Your task to perform on an android device: all mails in gmail Image 0: 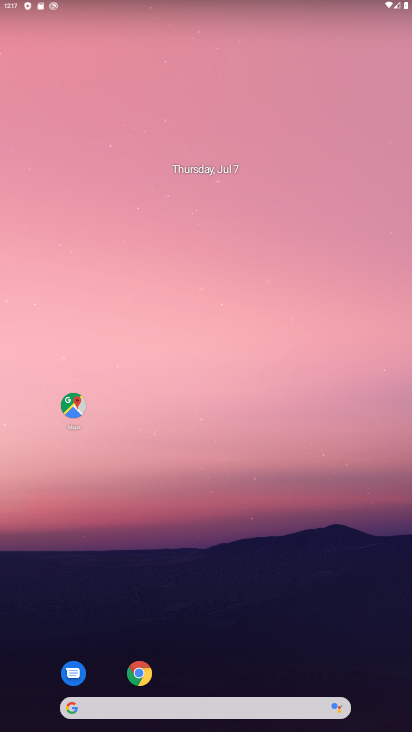
Step 0: drag from (187, 682) to (189, 0)
Your task to perform on an android device: all mails in gmail Image 1: 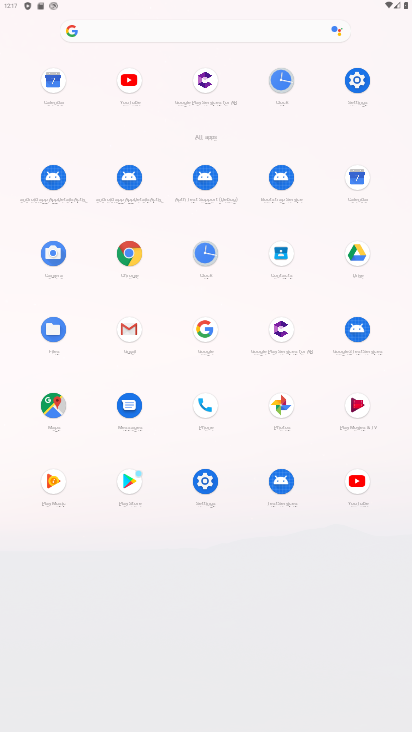
Step 1: click (133, 339)
Your task to perform on an android device: all mails in gmail Image 2: 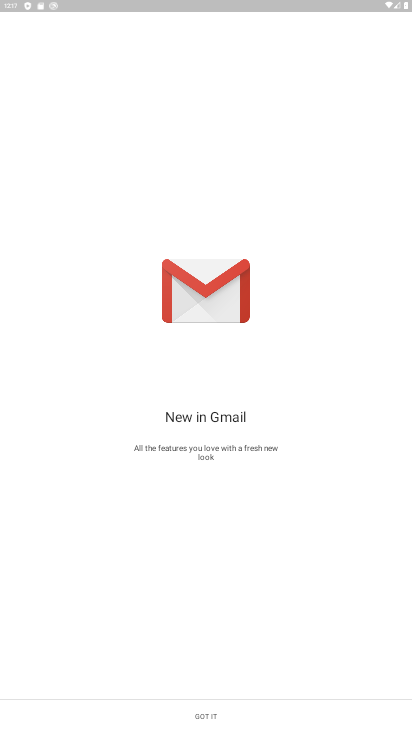
Step 2: click (200, 718)
Your task to perform on an android device: all mails in gmail Image 3: 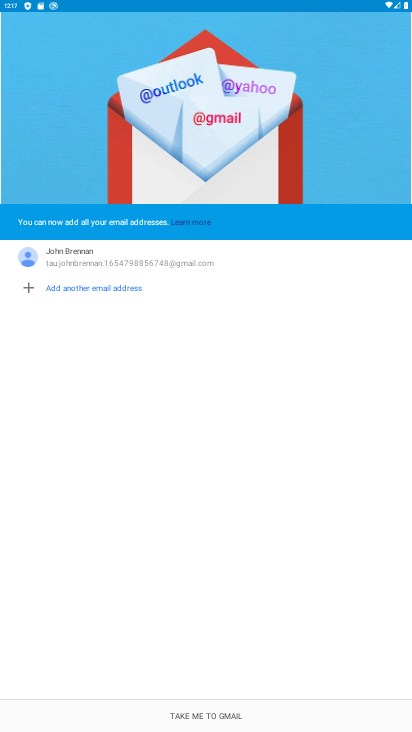
Step 3: click (163, 259)
Your task to perform on an android device: all mails in gmail Image 4: 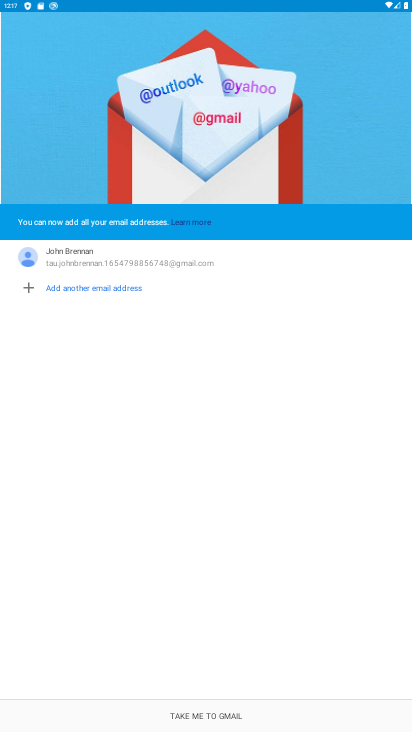
Step 4: click (142, 258)
Your task to perform on an android device: all mails in gmail Image 5: 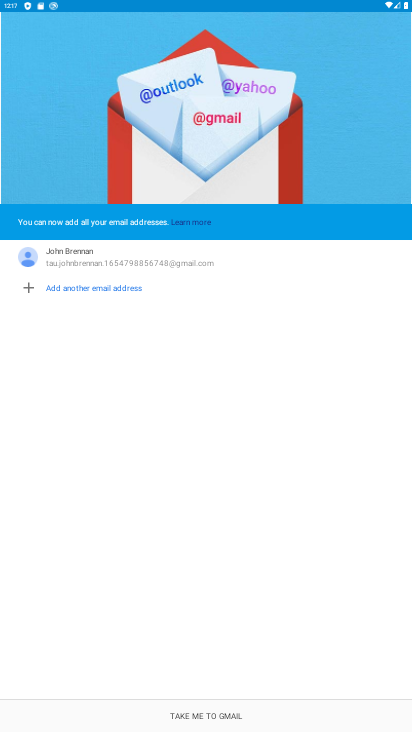
Step 5: click (180, 717)
Your task to perform on an android device: all mails in gmail Image 6: 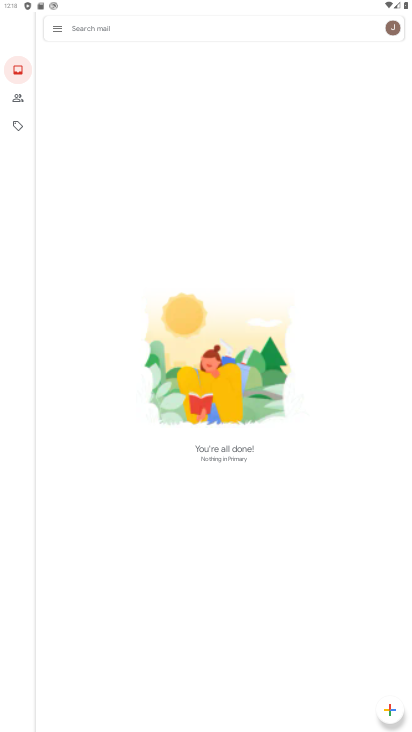
Step 6: click (58, 25)
Your task to perform on an android device: all mails in gmail Image 7: 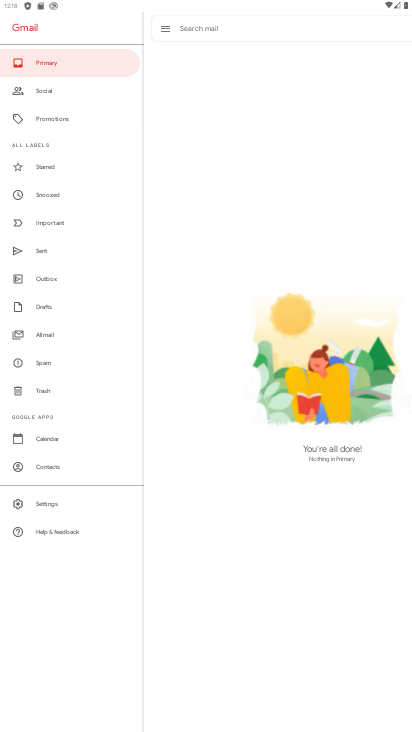
Step 7: click (52, 336)
Your task to perform on an android device: all mails in gmail Image 8: 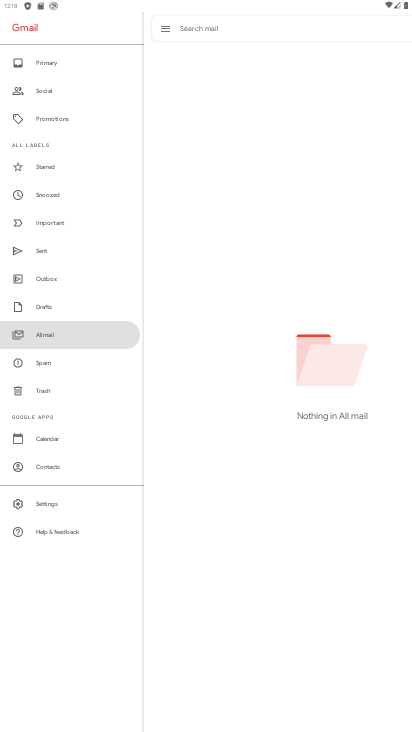
Step 8: task complete